Your task to perform on an android device: Open ESPN.com Image 0: 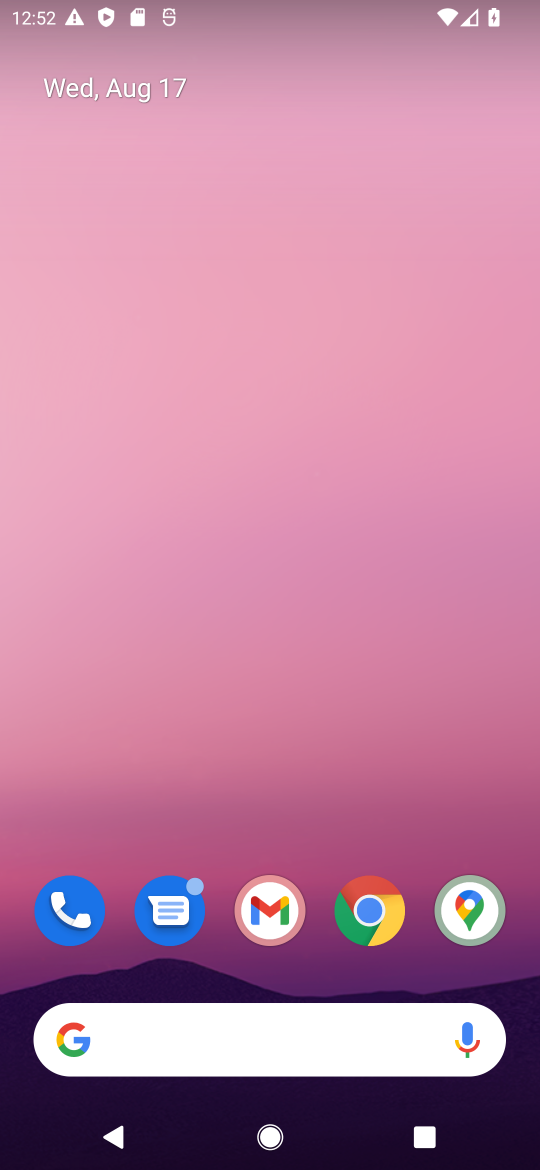
Step 0: click (371, 896)
Your task to perform on an android device: Open ESPN.com Image 1: 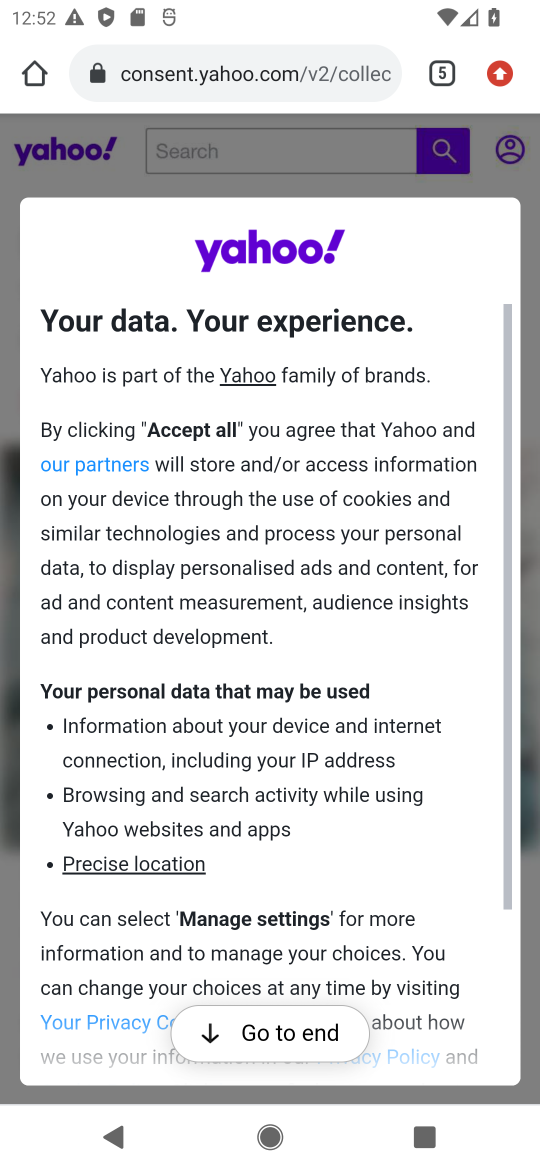
Step 1: click (435, 78)
Your task to perform on an android device: Open ESPN.com Image 2: 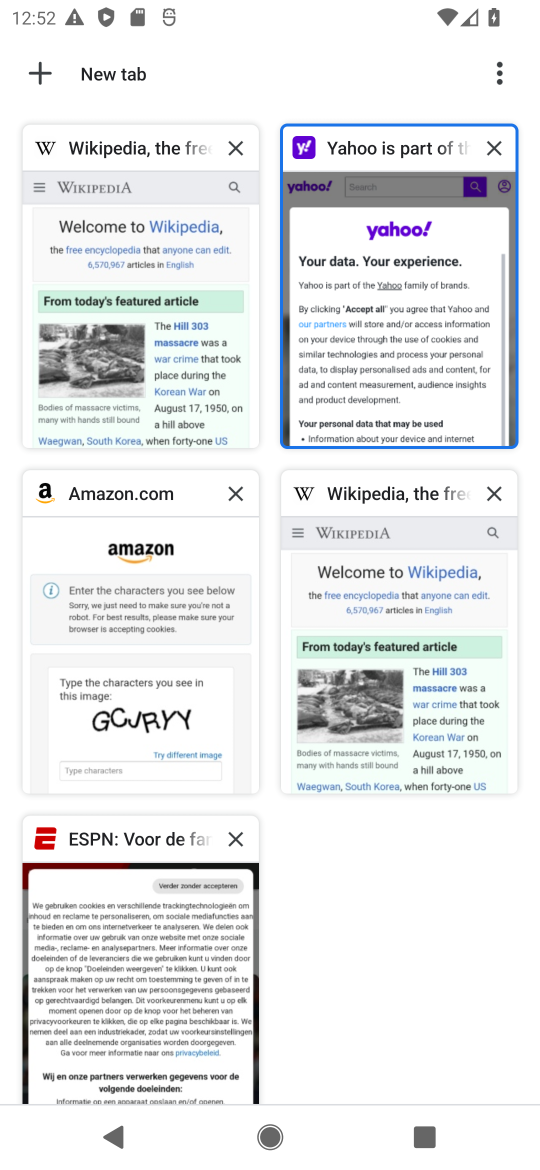
Step 2: click (135, 969)
Your task to perform on an android device: Open ESPN.com Image 3: 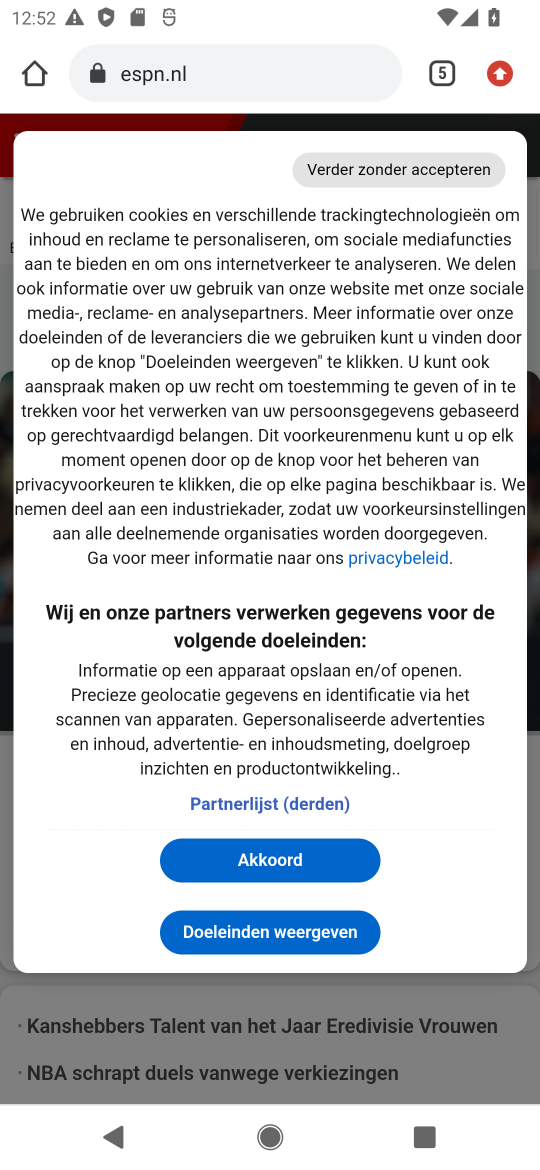
Step 3: task complete